Your task to perform on an android device: open app "Google Drive" Image 0: 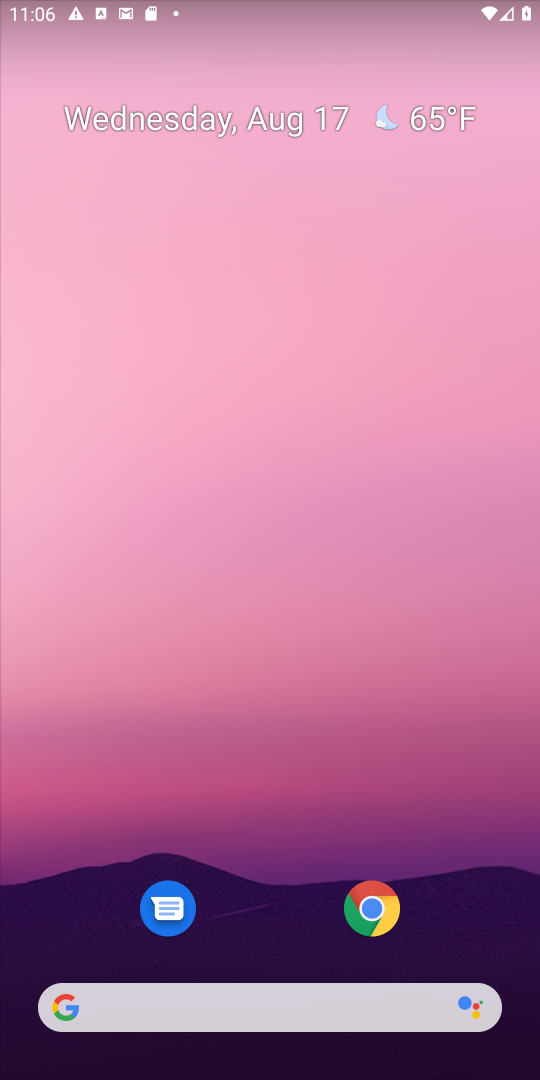
Step 0: drag from (227, 885) to (344, 109)
Your task to perform on an android device: open app "Google Drive" Image 1: 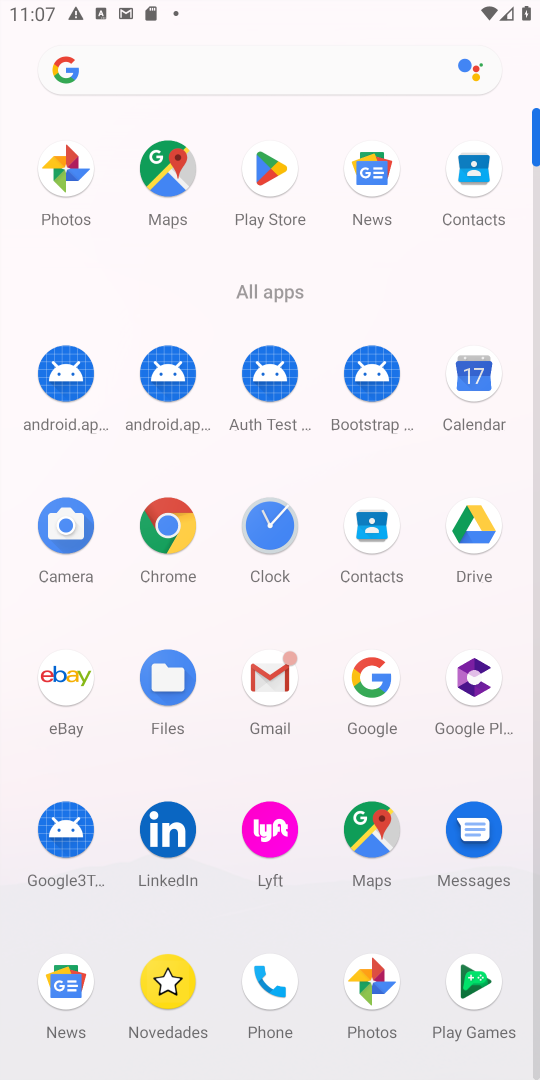
Step 1: click (284, 167)
Your task to perform on an android device: open app "Google Drive" Image 2: 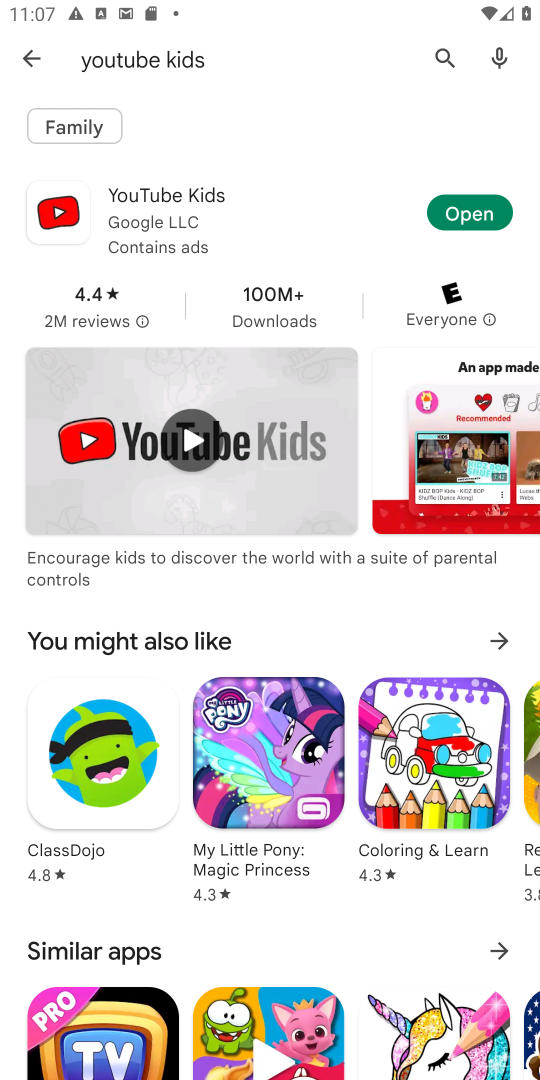
Step 2: click (447, 54)
Your task to perform on an android device: open app "Google Drive" Image 3: 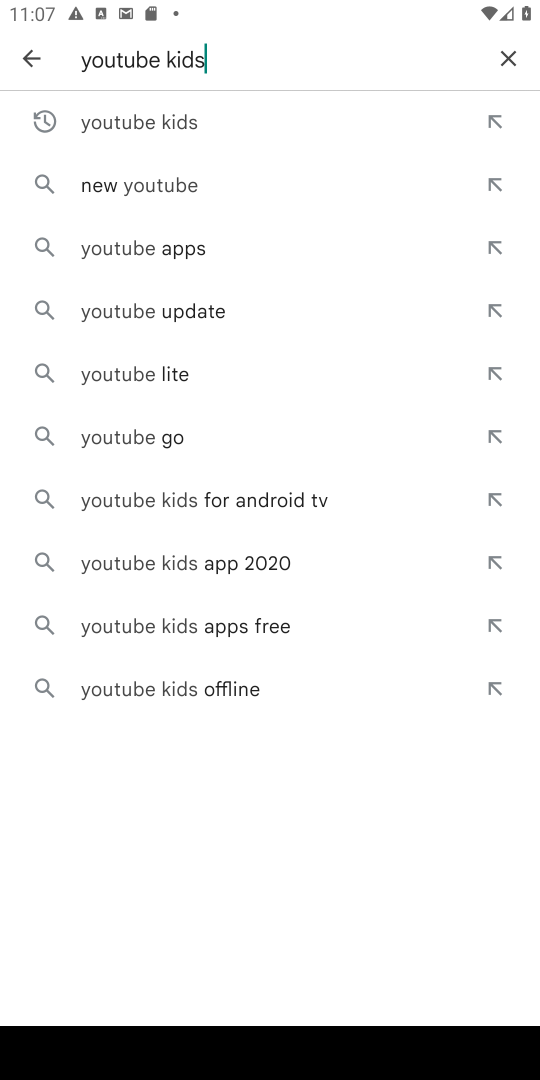
Step 3: click (511, 57)
Your task to perform on an android device: open app "Google Drive" Image 4: 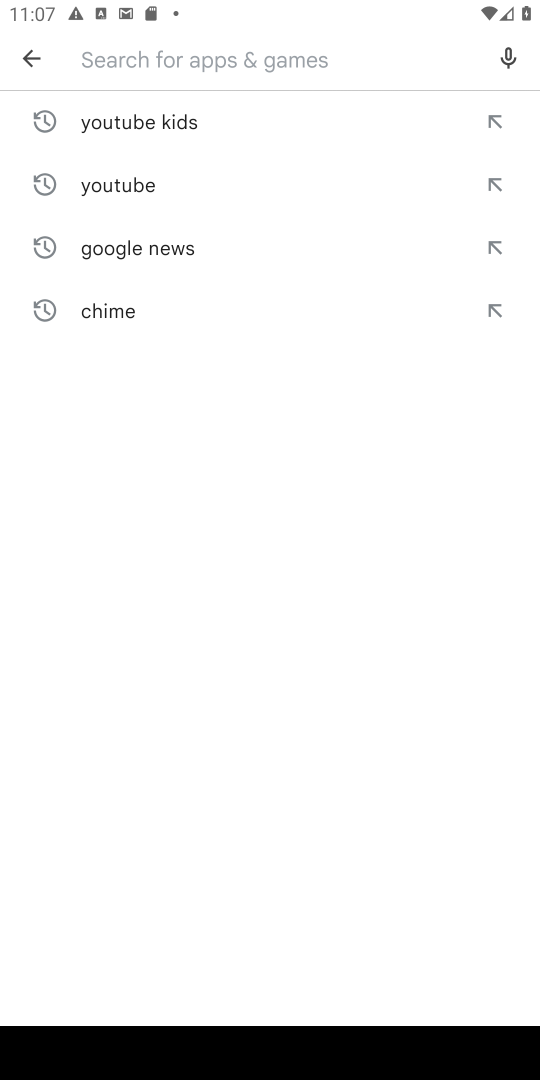
Step 4: click (303, 75)
Your task to perform on an android device: open app "Google Drive" Image 5: 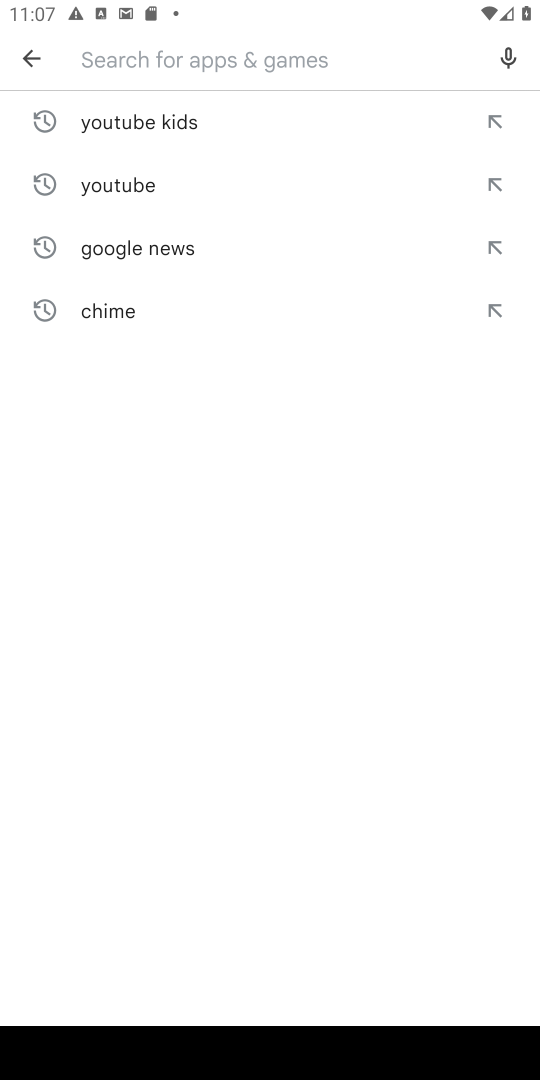
Step 5: type "google drive"
Your task to perform on an android device: open app "Google Drive" Image 6: 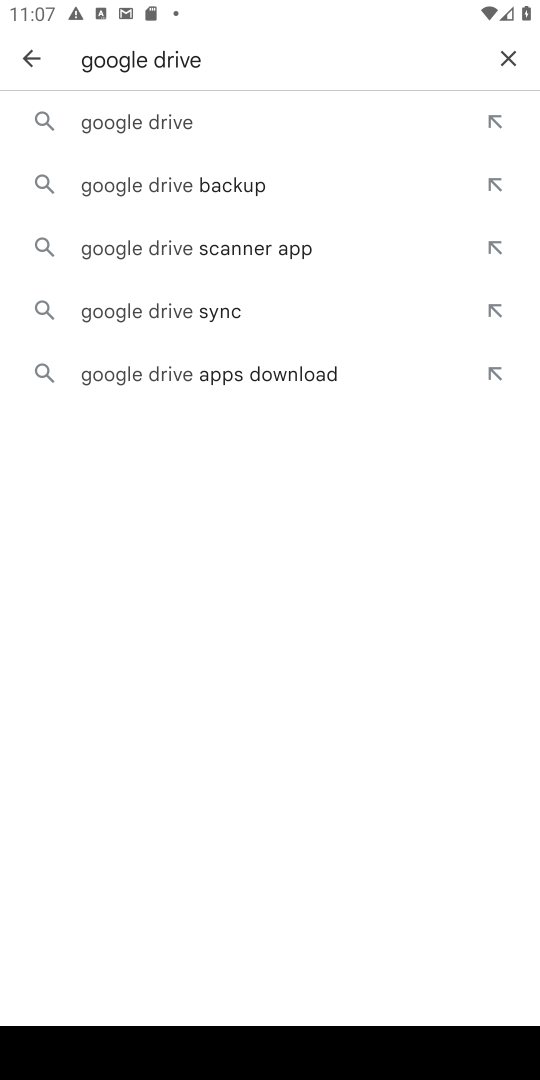
Step 6: click (148, 118)
Your task to perform on an android device: open app "Google Drive" Image 7: 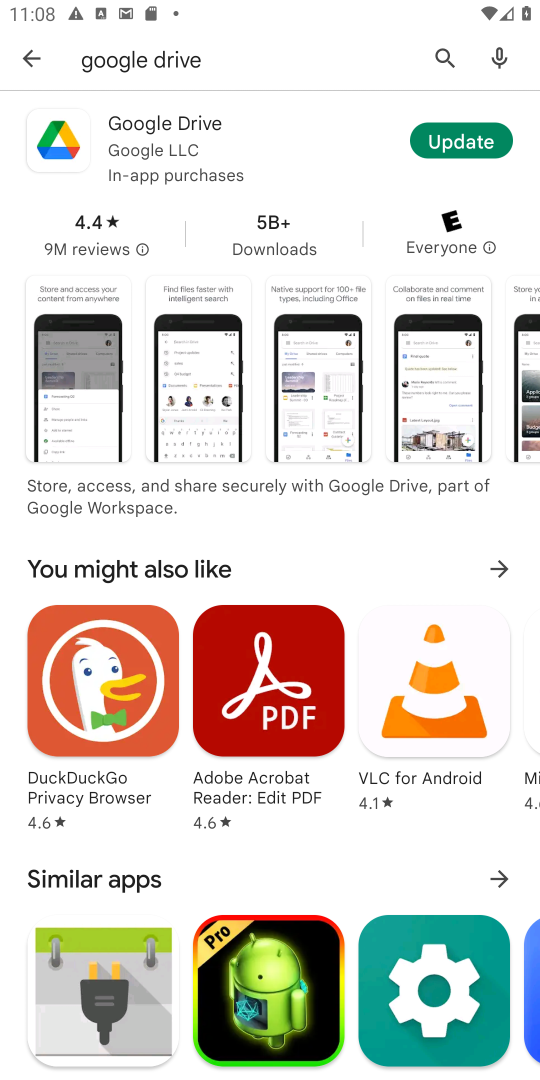
Step 7: click (245, 146)
Your task to perform on an android device: open app "Google Drive" Image 8: 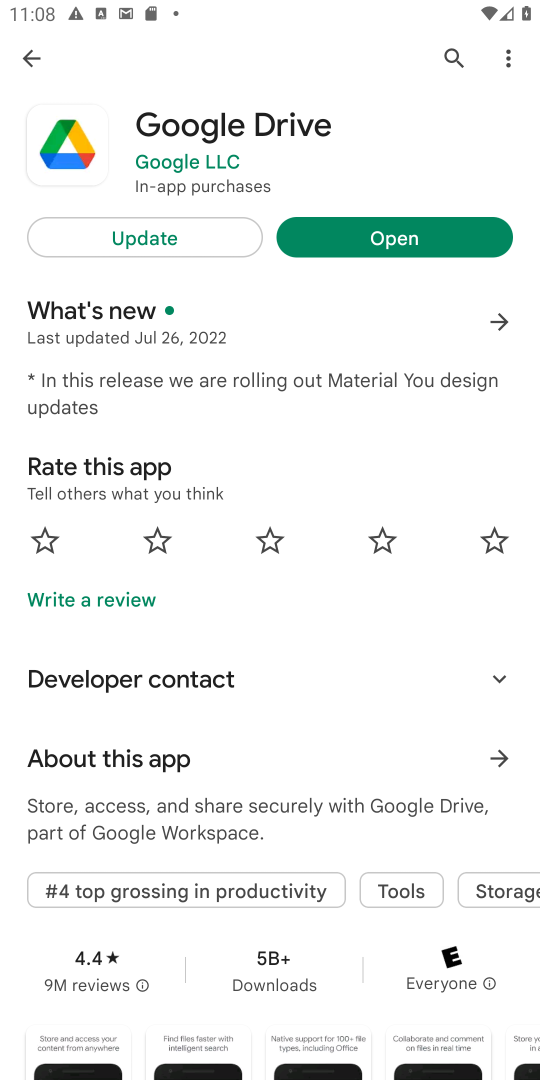
Step 8: click (375, 244)
Your task to perform on an android device: open app "Google Drive" Image 9: 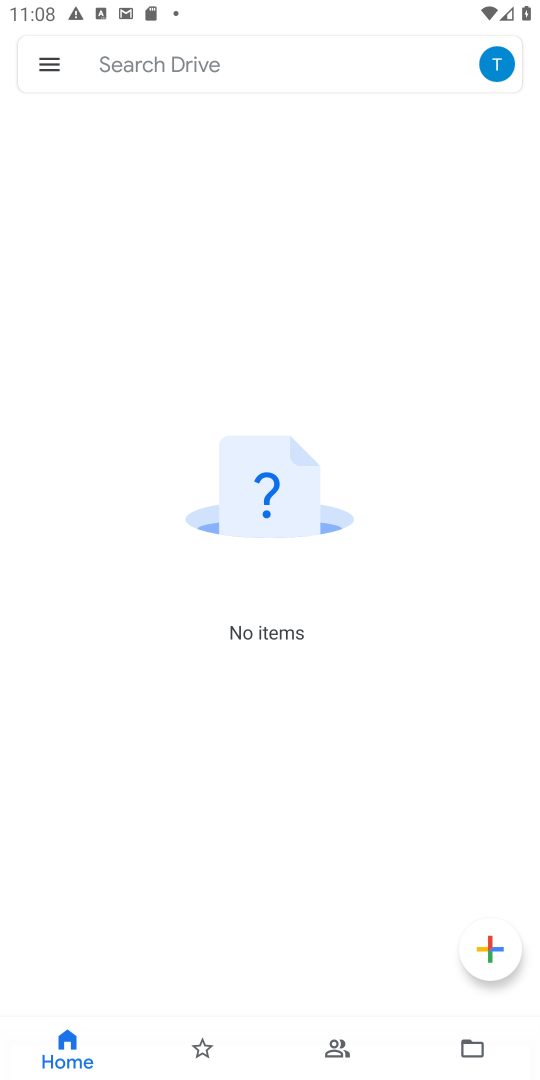
Step 9: task complete